Your task to perform on an android device: Do I have any events tomorrow? Image 0: 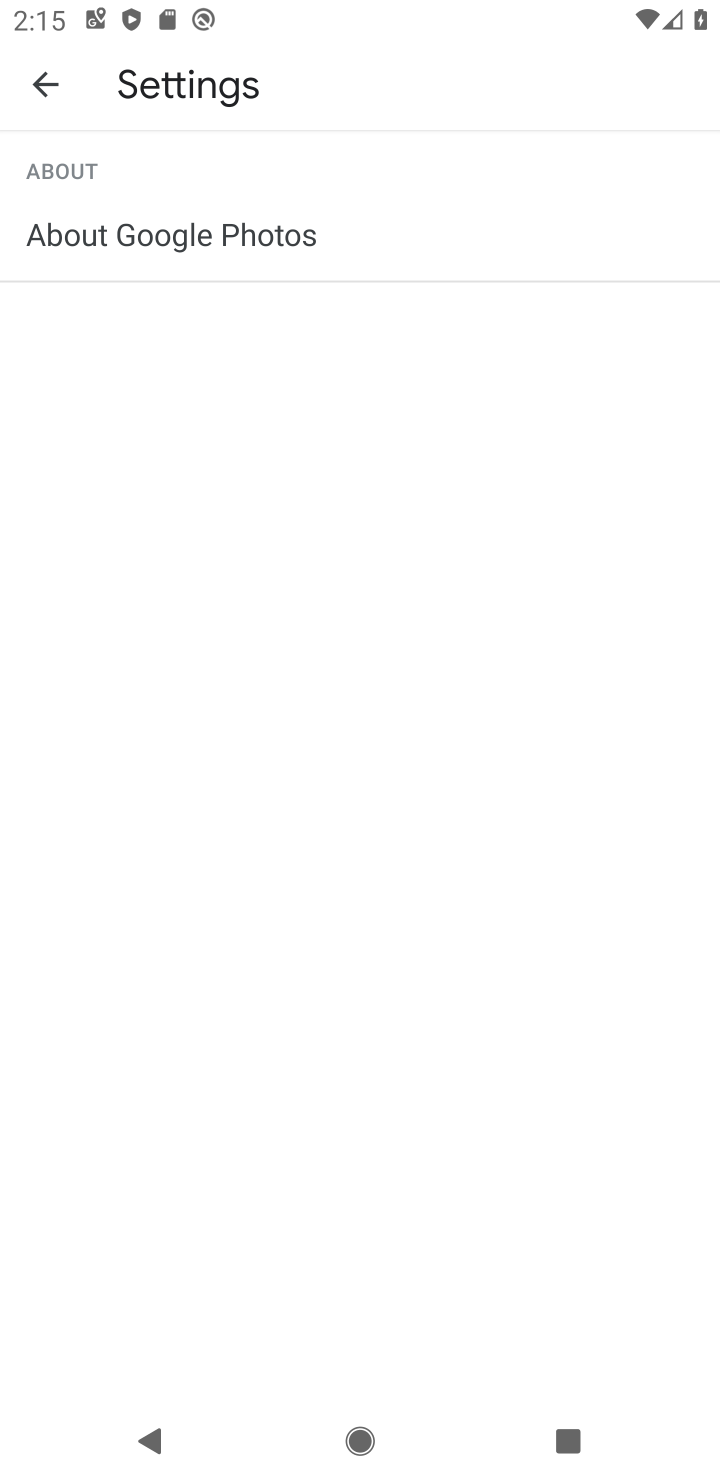
Step 0: press home button
Your task to perform on an android device: Do I have any events tomorrow? Image 1: 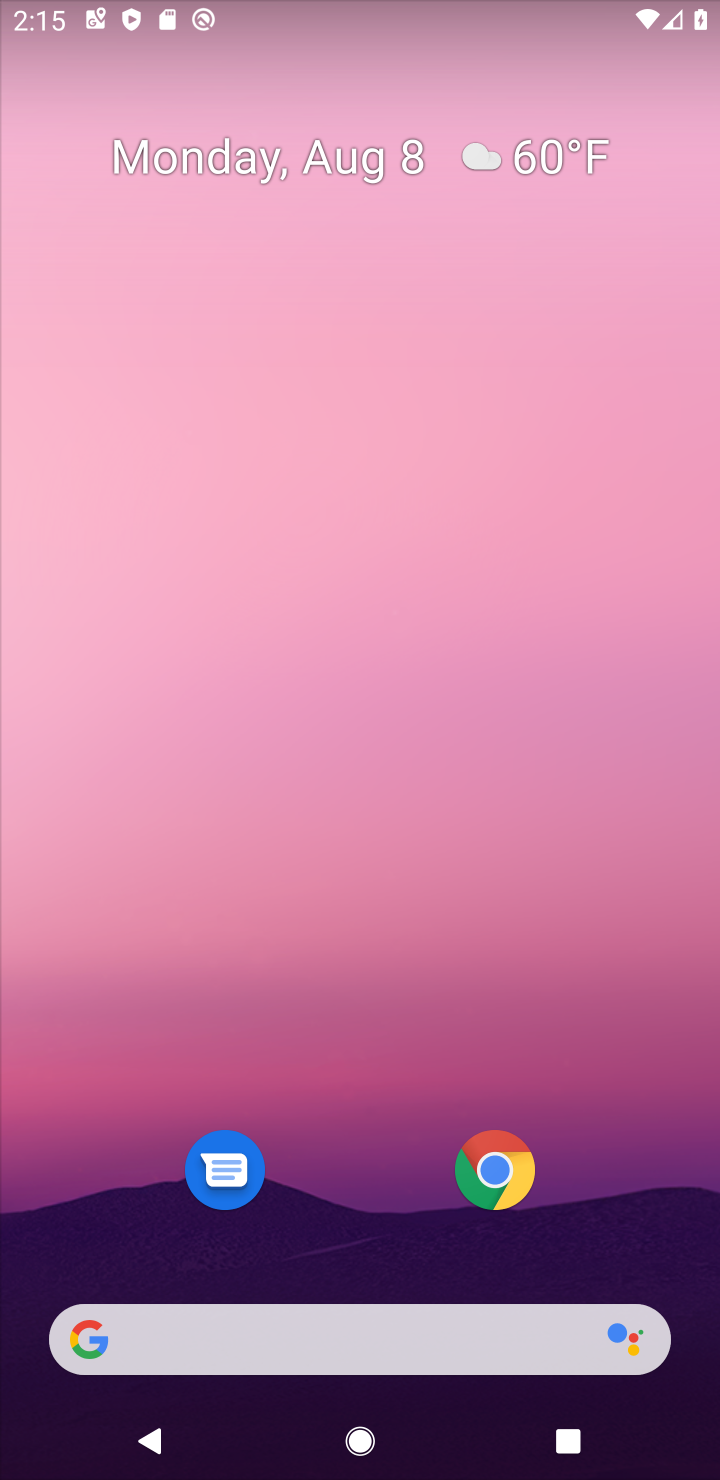
Step 1: drag from (356, 1175) to (327, 346)
Your task to perform on an android device: Do I have any events tomorrow? Image 2: 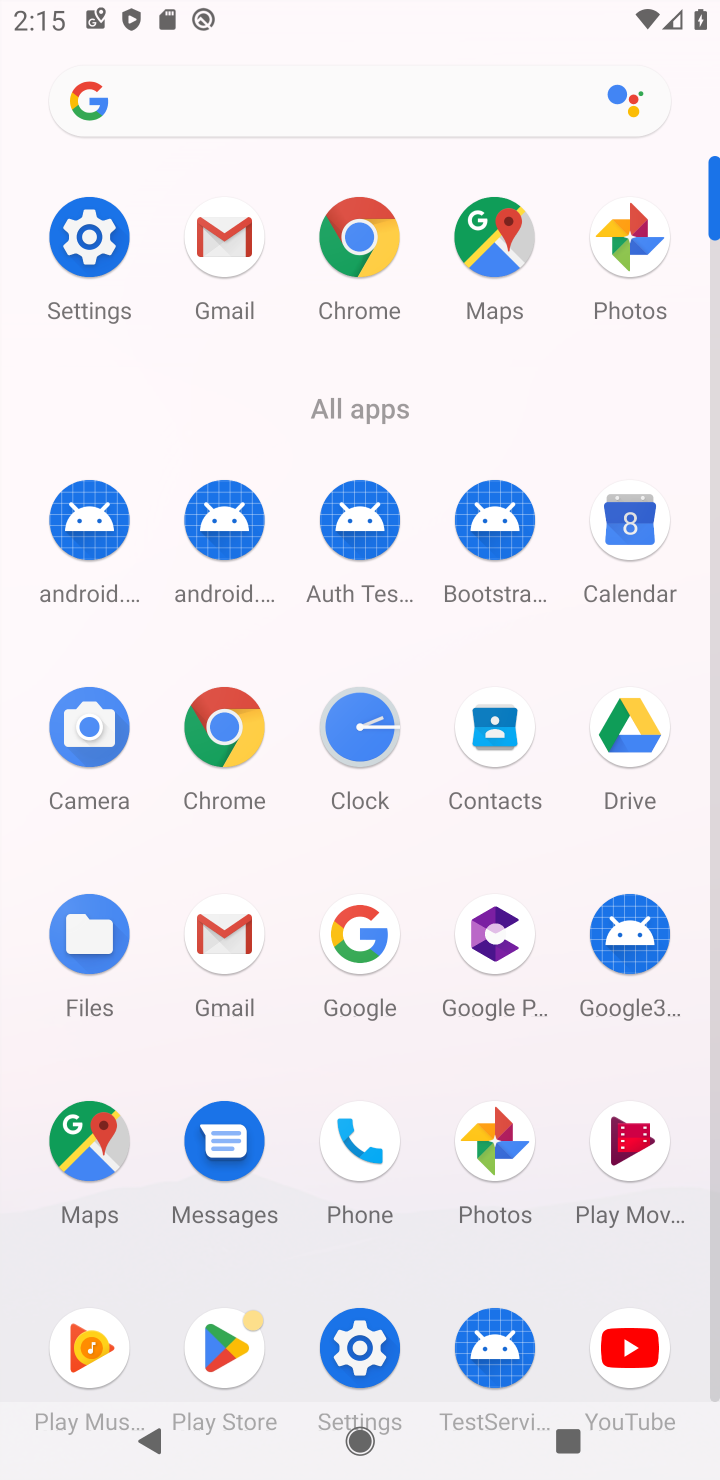
Step 2: click (598, 523)
Your task to perform on an android device: Do I have any events tomorrow? Image 3: 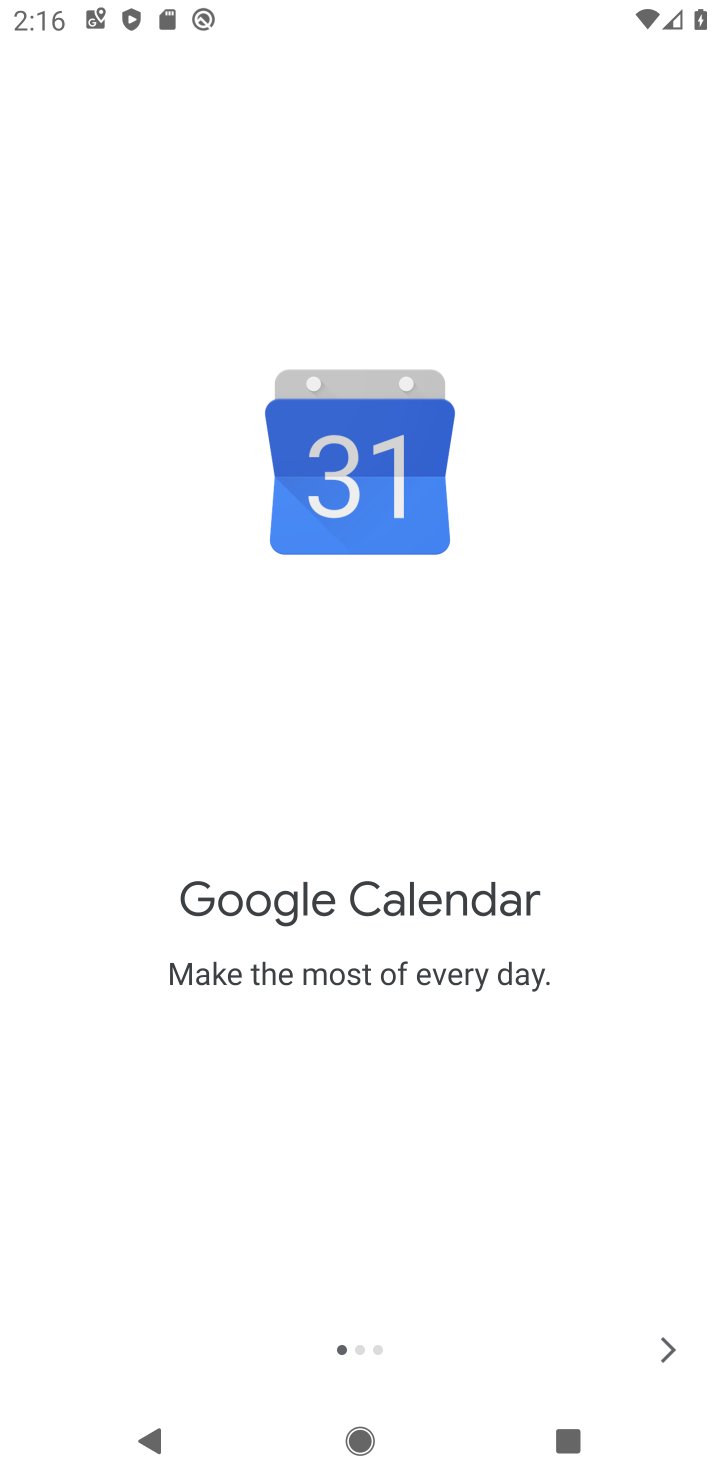
Step 3: click (669, 1337)
Your task to perform on an android device: Do I have any events tomorrow? Image 4: 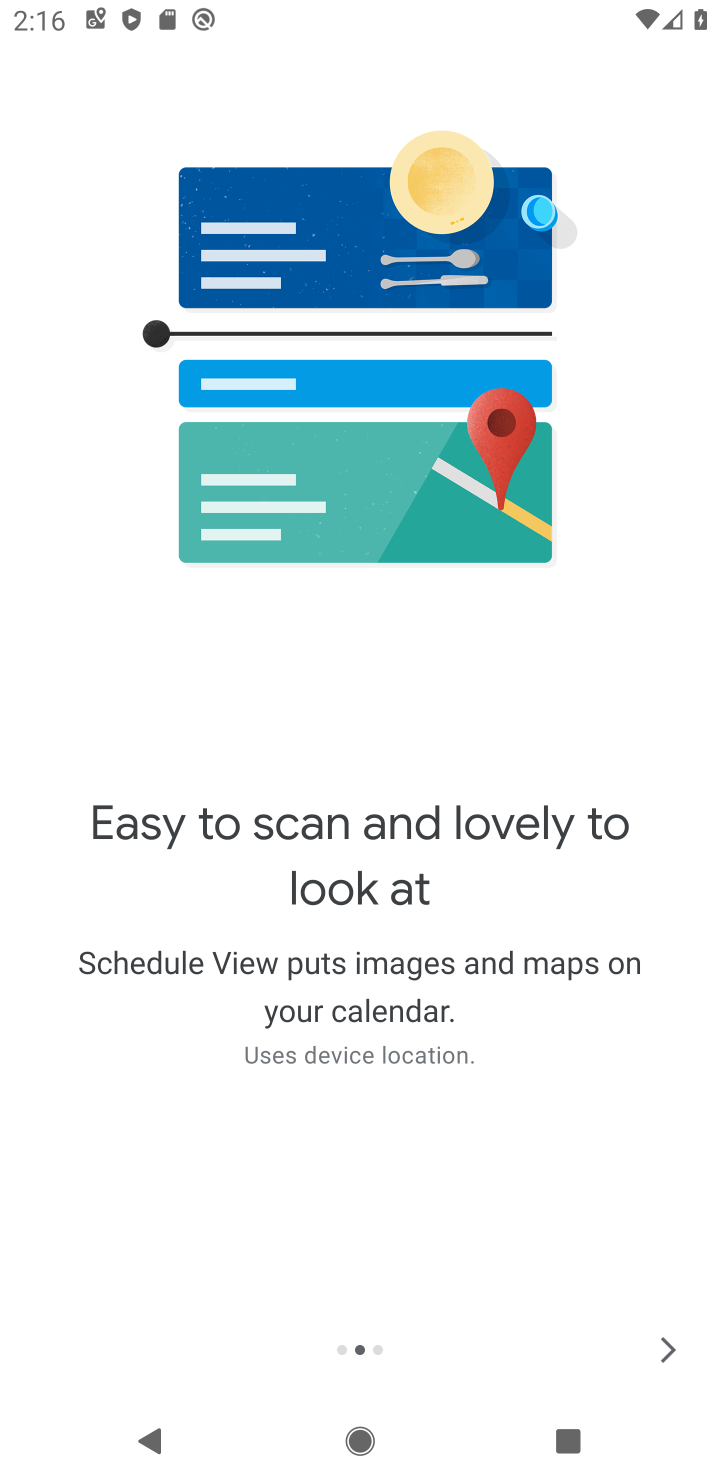
Step 4: click (669, 1337)
Your task to perform on an android device: Do I have any events tomorrow? Image 5: 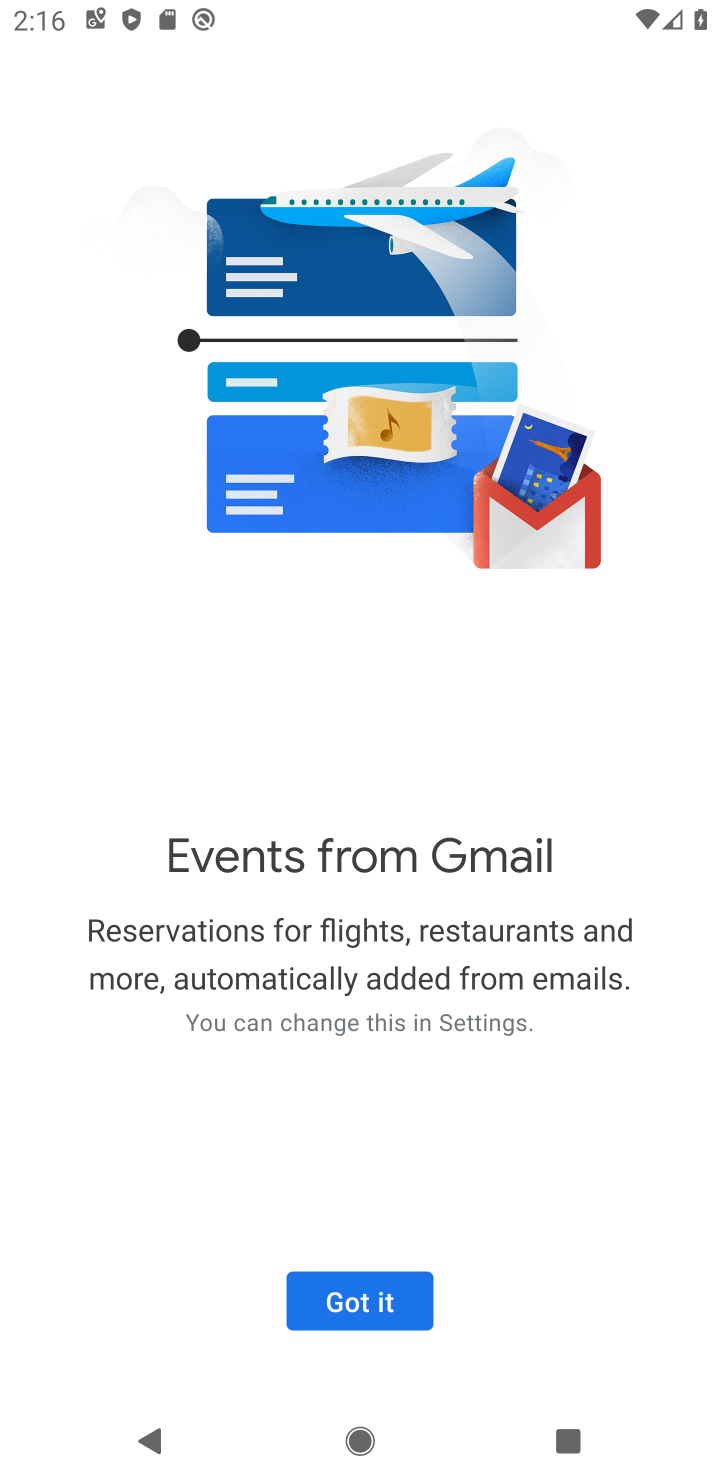
Step 5: click (341, 1313)
Your task to perform on an android device: Do I have any events tomorrow? Image 6: 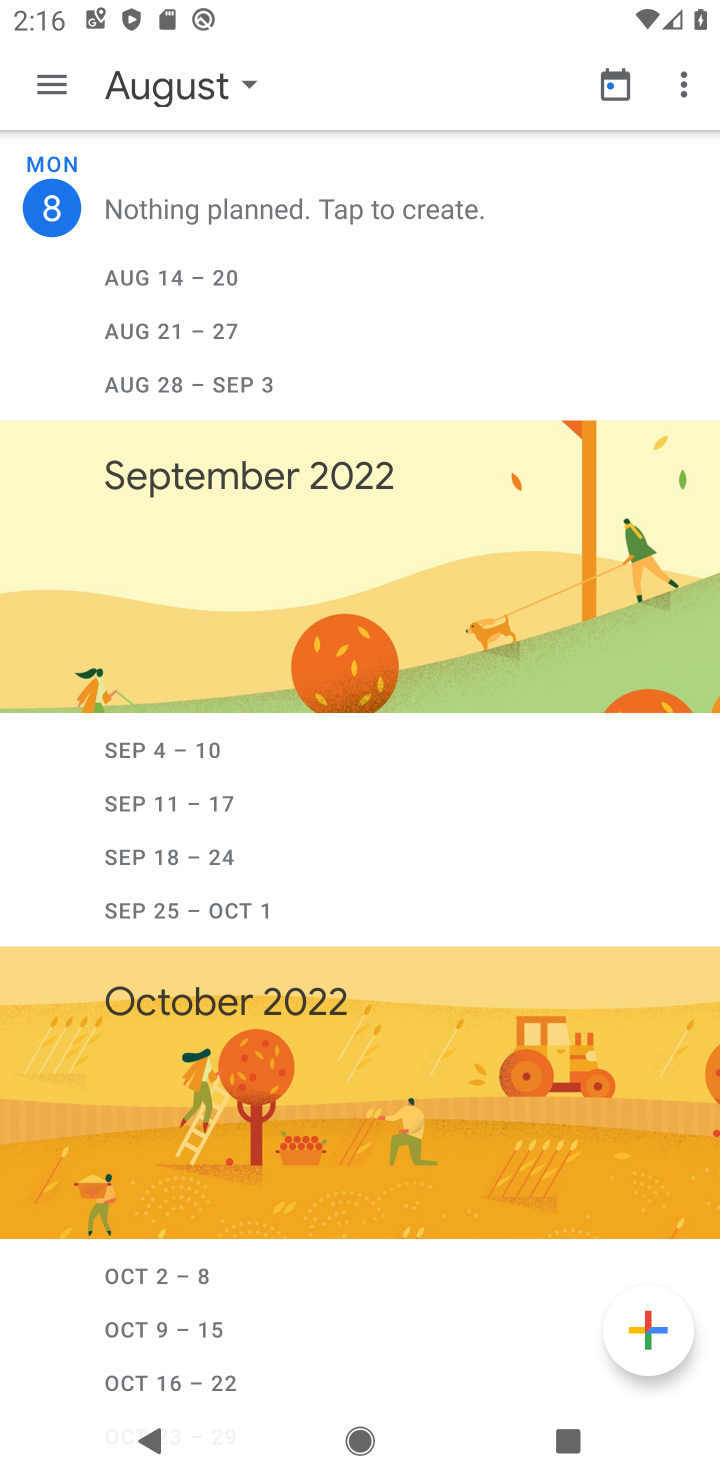
Step 6: click (262, 88)
Your task to perform on an android device: Do I have any events tomorrow? Image 7: 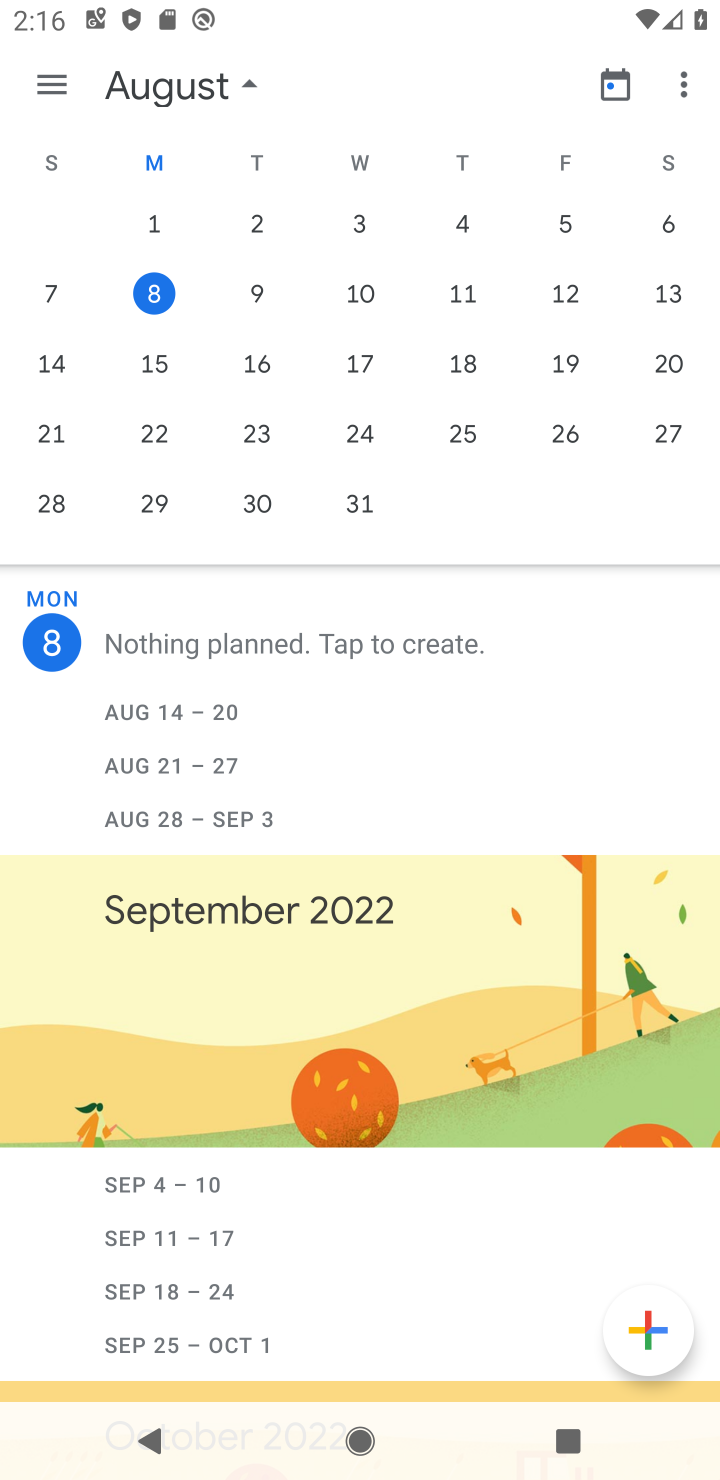
Step 7: click (238, 87)
Your task to perform on an android device: Do I have any events tomorrow? Image 8: 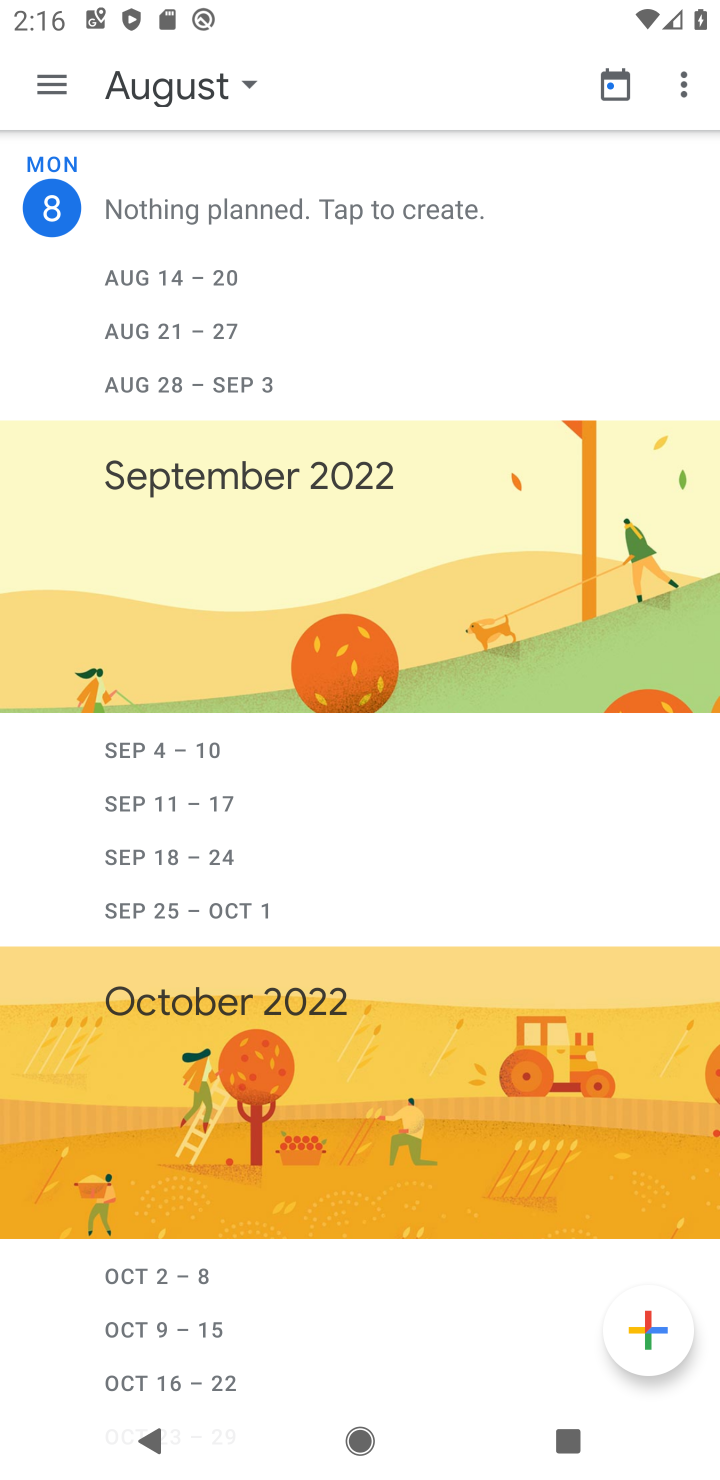
Step 8: click (252, 96)
Your task to perform on an android device: Do I have any events tomorrow? Image 9: 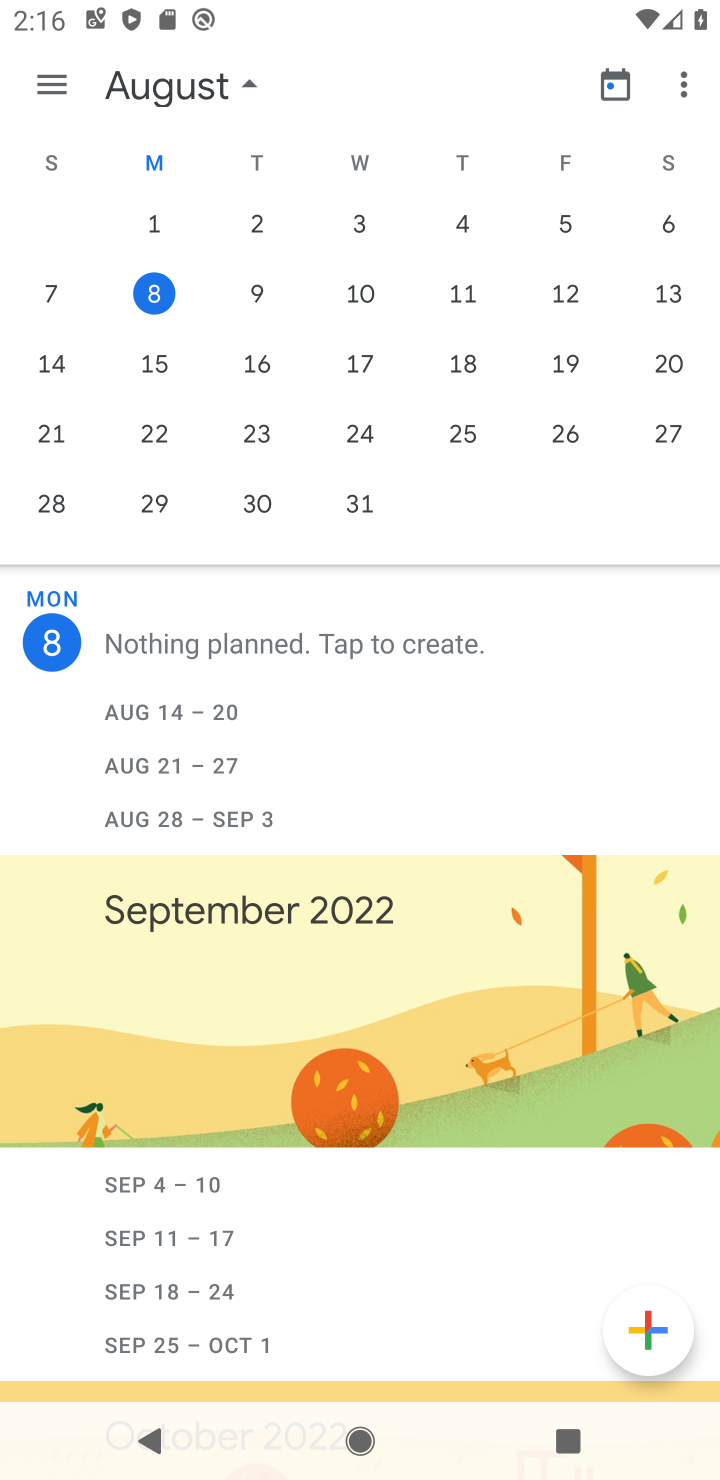
Step 9: click (254, 303)
Your task to perform on an android device: Do I have any events tomorrow? Image 10: 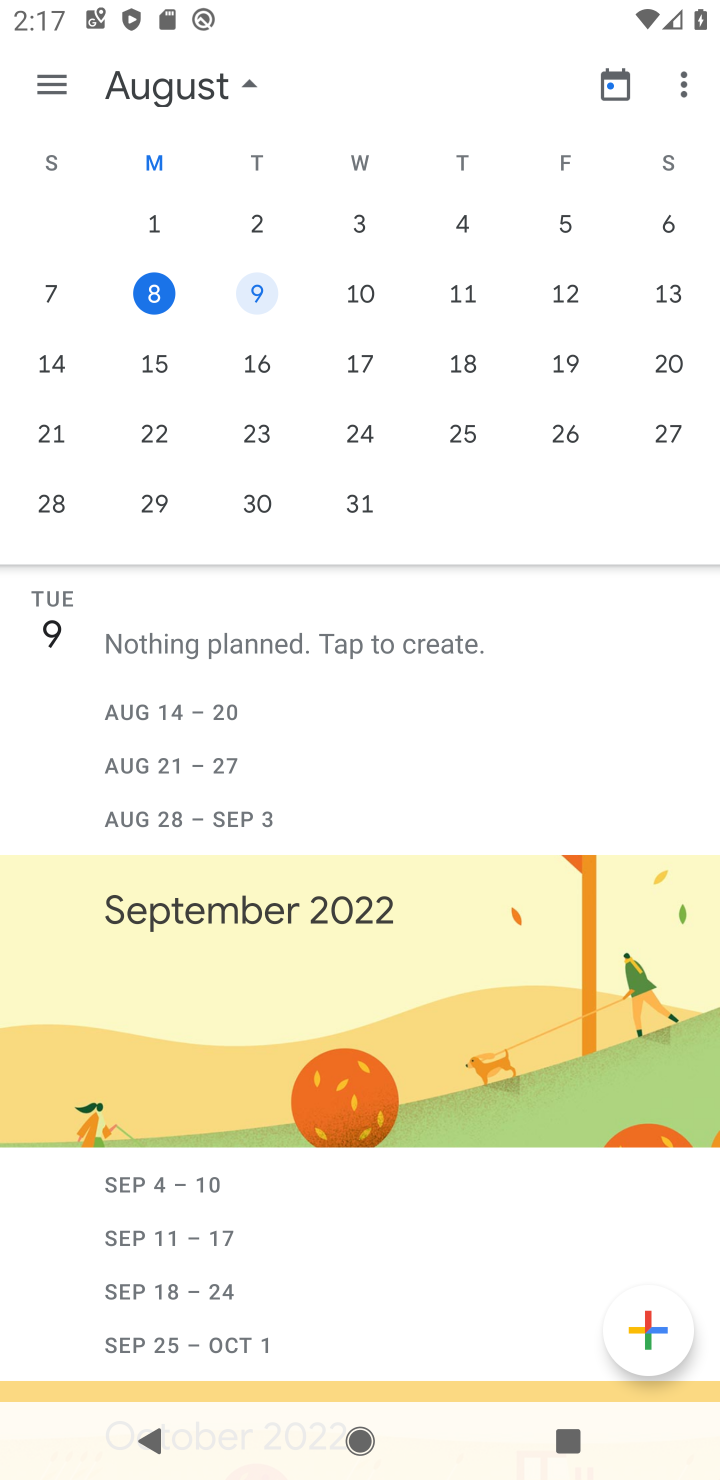
Step 10: task complete